Your task to perform on an android device: toggle javascript in the chrome app Image 0: 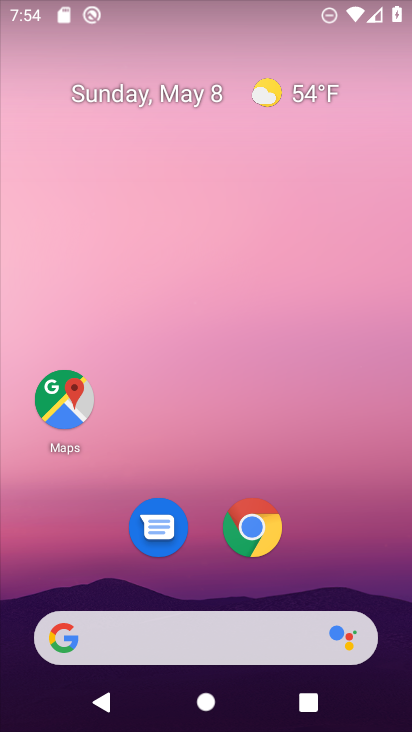
Step 0: drag from (391, 624) to (351, 132)
Your task to perform on an android device: toggle javascript in the chrome app Image 1: 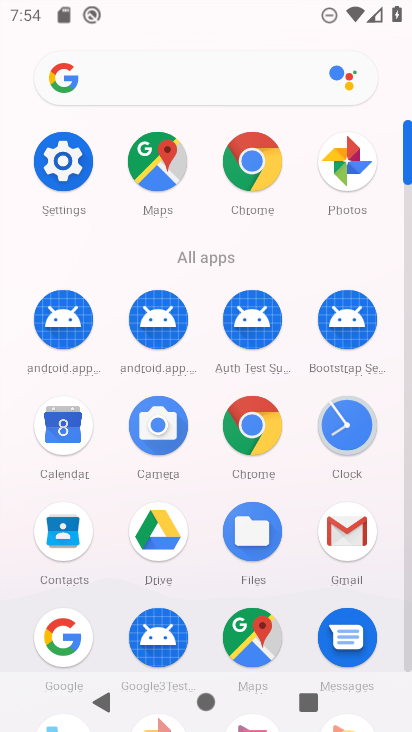
Step 1: click (241, 435)
Your task to perform on an android device: toggle javascript in the chrome app Image 2: 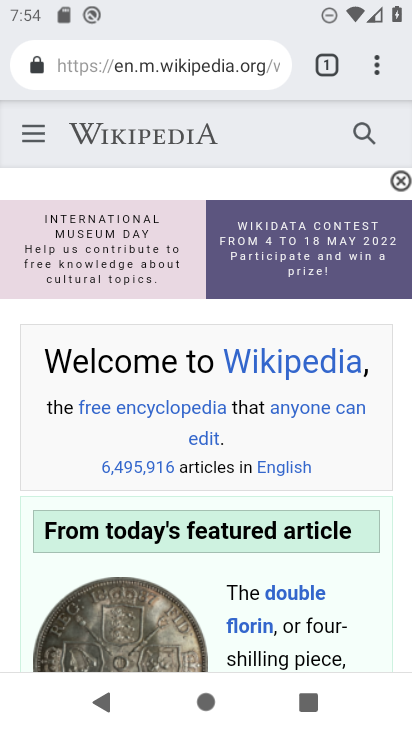
Step 2: click (379, 58)
Your task to perform on an android device: toggle javascript in the chrome app Image 3: 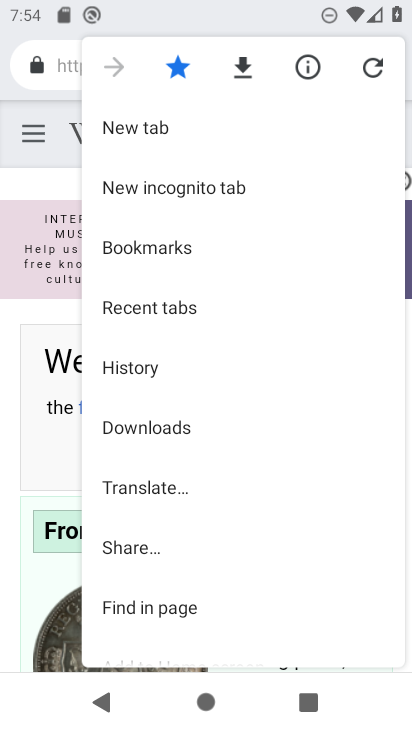
Step 3: drag from (199, 573) to (296, 158)
Your task to perform on an android device: toggle javascript in the chrome app Image 4: 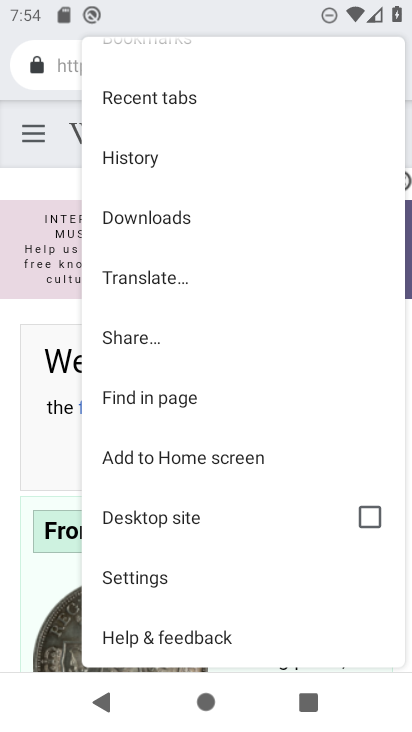
Step 4: click (143, 590)
Your task to perform on an android device: toggle javascript in the chrome app Image 5: 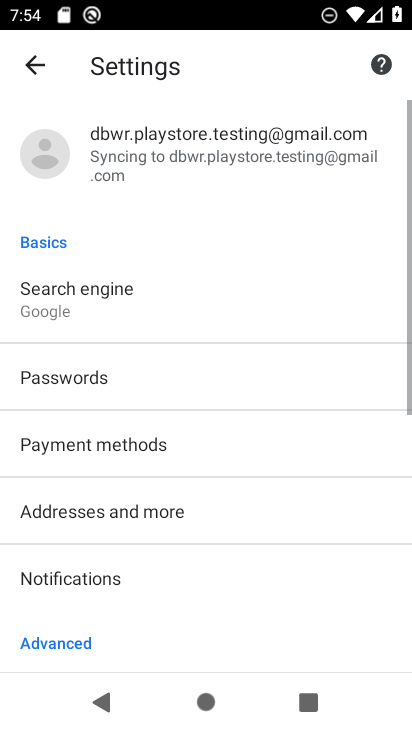
Step 5: drag from (144, 586) to (250, 276)
Your task to perform on an android device: toggle javascript in the chrome app Image 6: 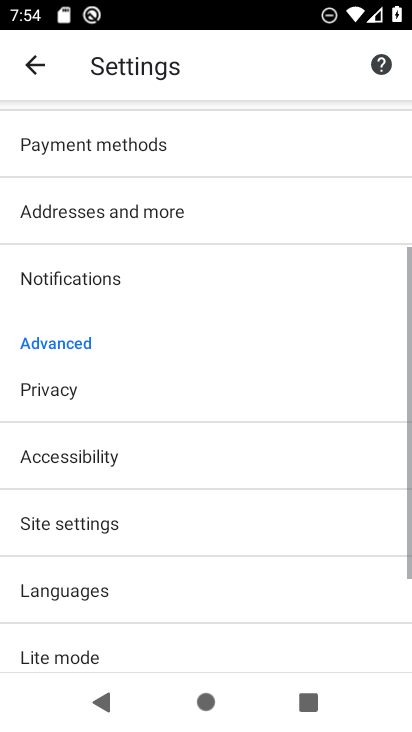
Step 6: click (253, 272)
Your task to perform on an android device: toggle javascript in the chrome app Image 7: 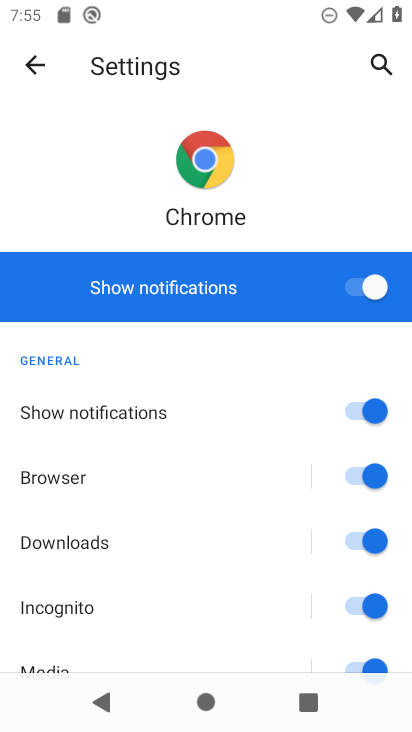
Step 7: click (45, 62)
Your task to perform on an android device: toggle javascript in the chrome app Image 8: 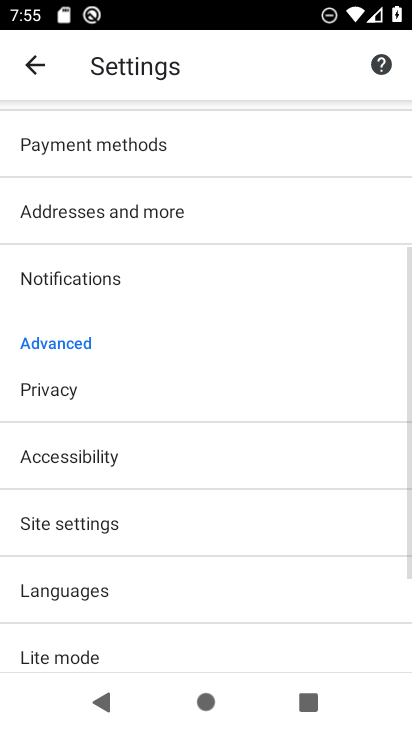
Step 8: click (86, 533)
Your task to perform on an android device: toggle javascript in the chrome app Image 9: 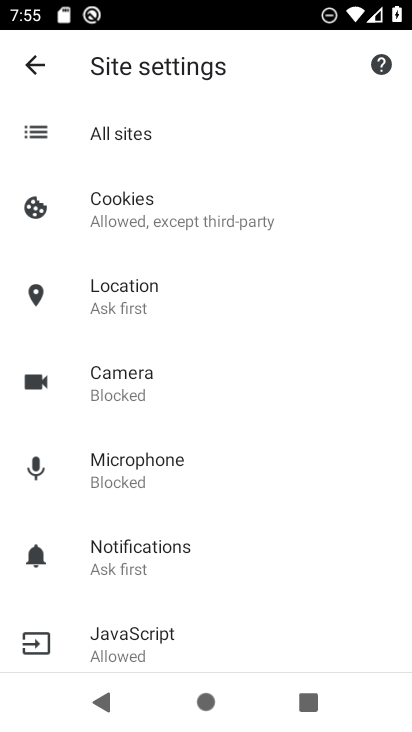
Step 9: drag from (275, 590) to (358, 155)
Your task to perform on an android device: toggle javascript in the chrome app Image 10: 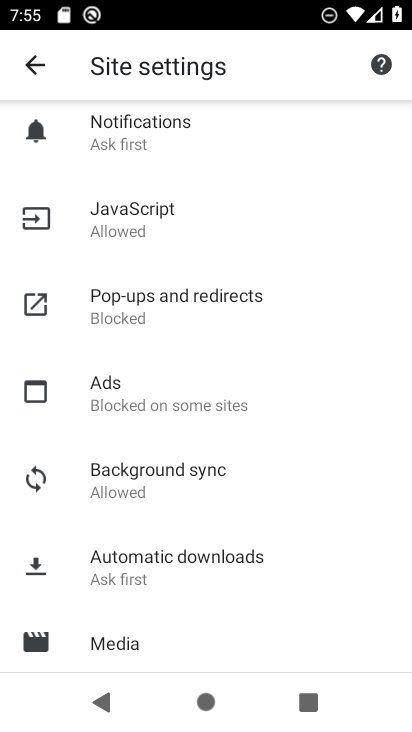
Step 10: click (118, 229)
Your task to perform on an android device: toggle javascript in the chrome app Image 11: 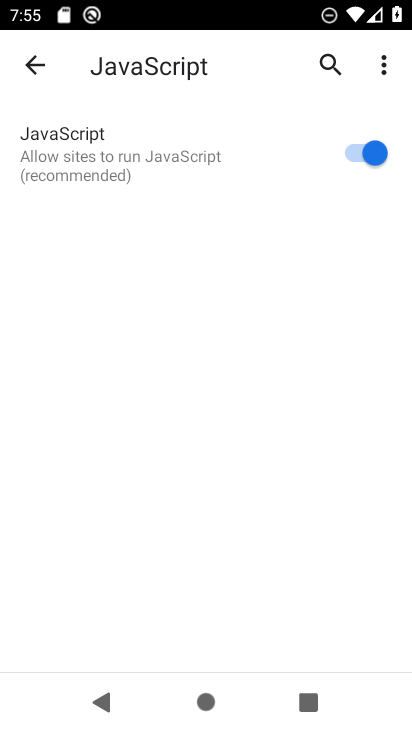
Step 11: click (387, 173)
Your task to perform on an android device: toggle javascript in the chrome app Image 12: 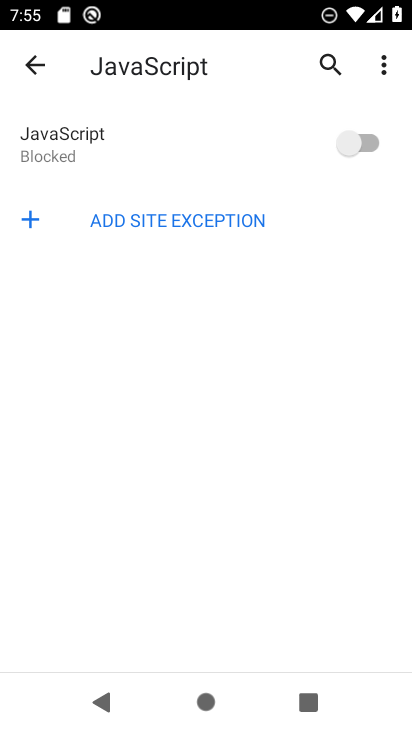
Step 12: task complete